Your task to perform on an android device: Go to Reddit.com Image 0: 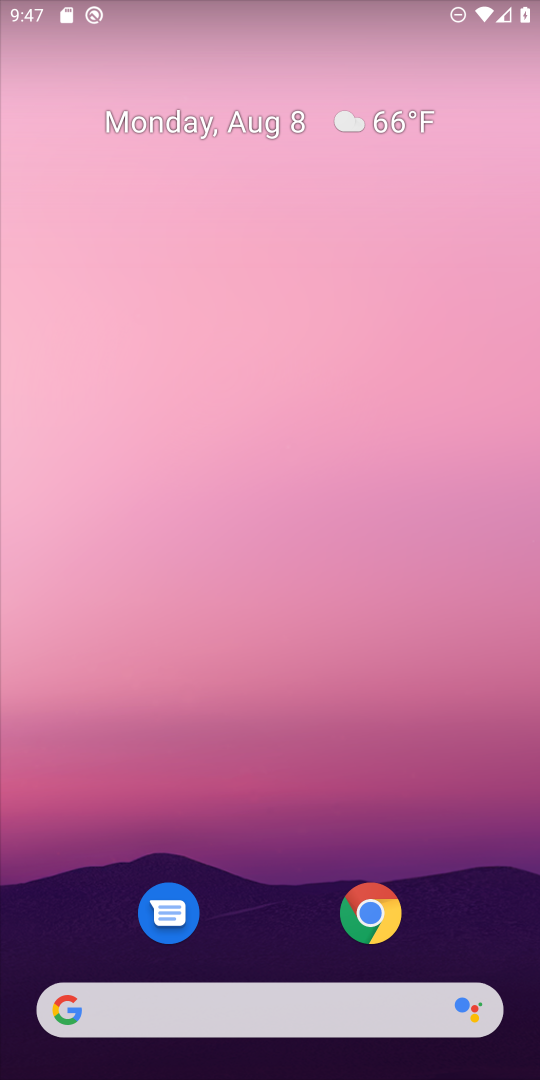
Step 0: press home button
Your task to perform on an android device: Go to Reddit.com Image 1: 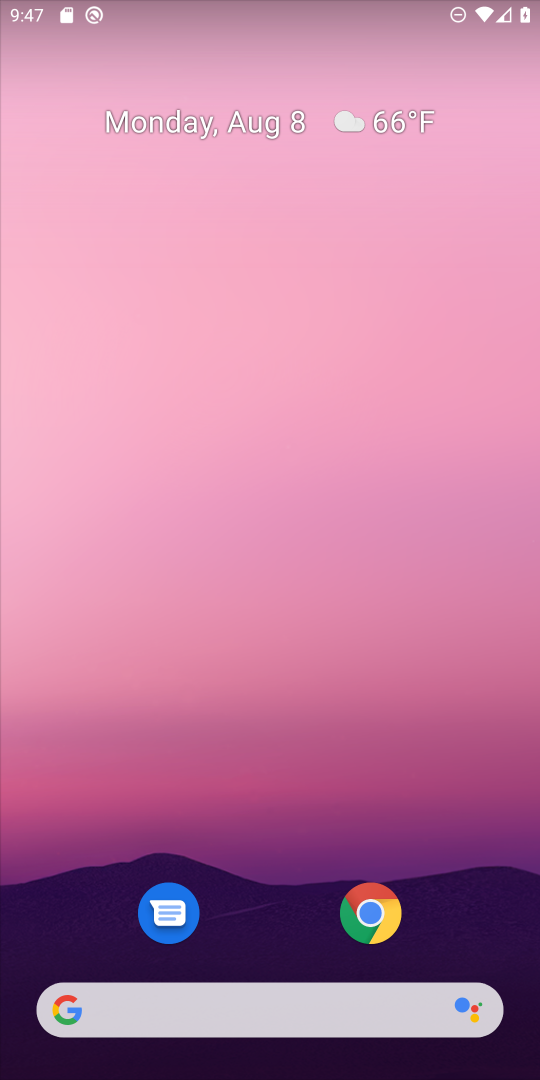
Step 1: click (370, 912)
Your task to perform on an android device: Go to Reddit.com Image 2: 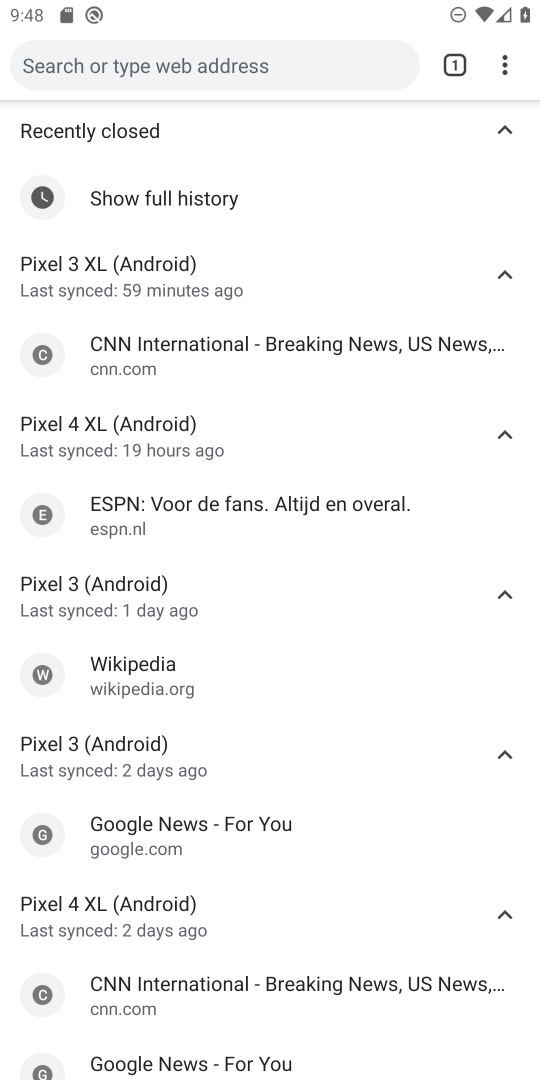
Step 2: press home button
Your task to perform on an android device: Go to Reddit.com Image 3: 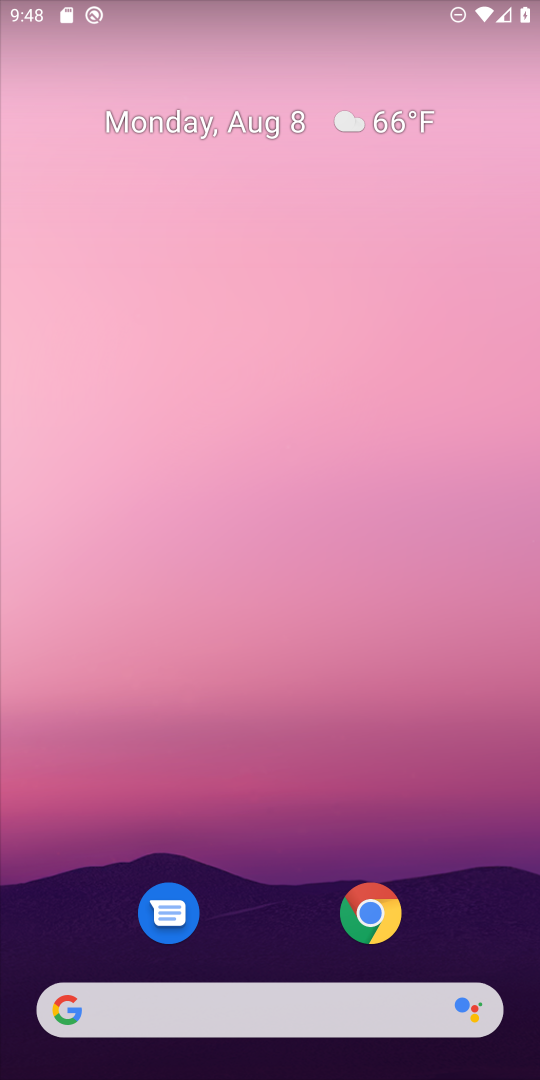
Step 3: click (367, 918)
Your task to perform on an android device: Go to Reddit.com Image 4: 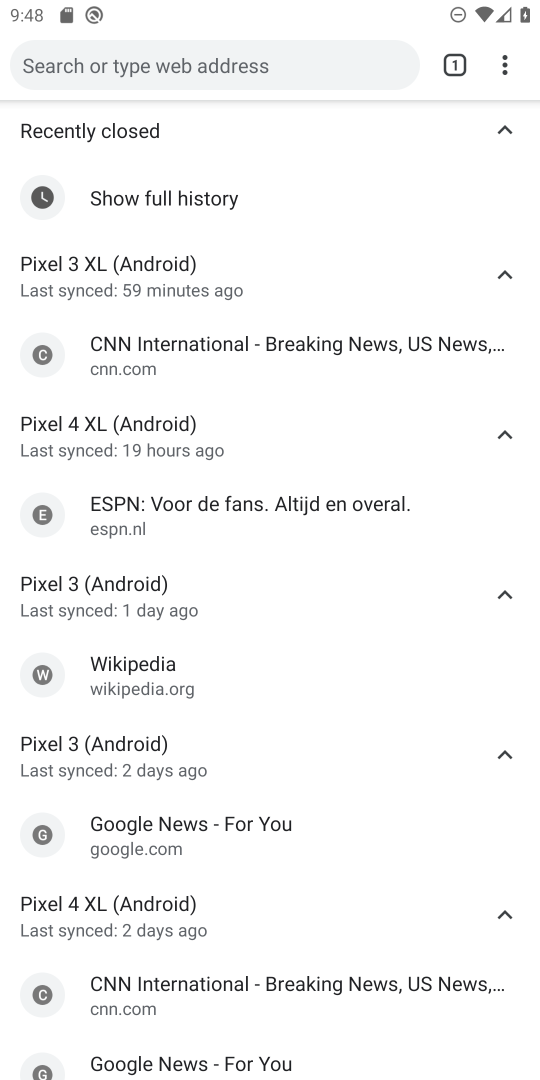
Step 4: click (306, 71)
Your task to perform on an android device: Go to Reddit.com Image 5: 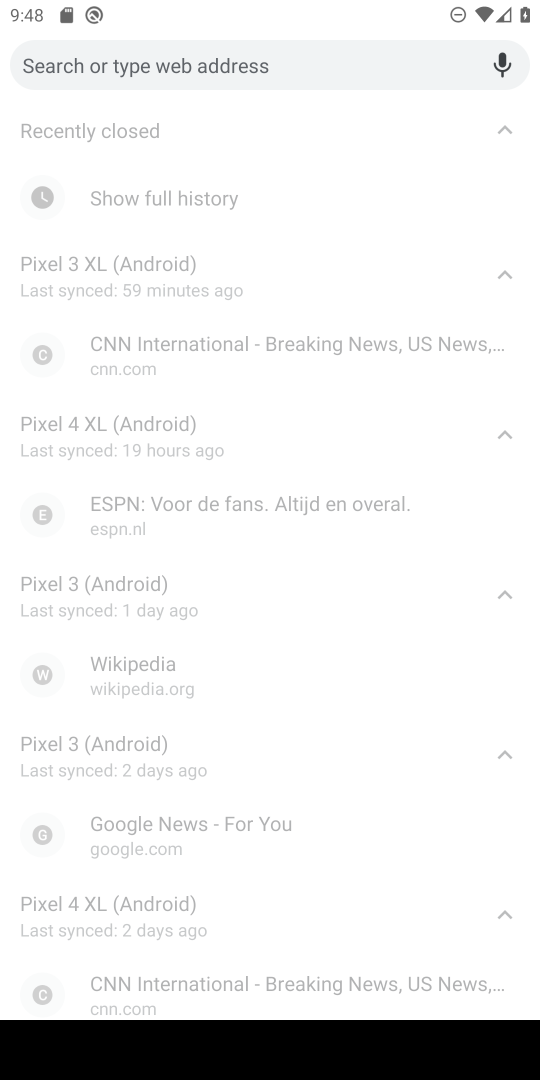
Step 5: type "Reddit.com"
Your task to perform on an android device: Go to Reddit.com Image 6: 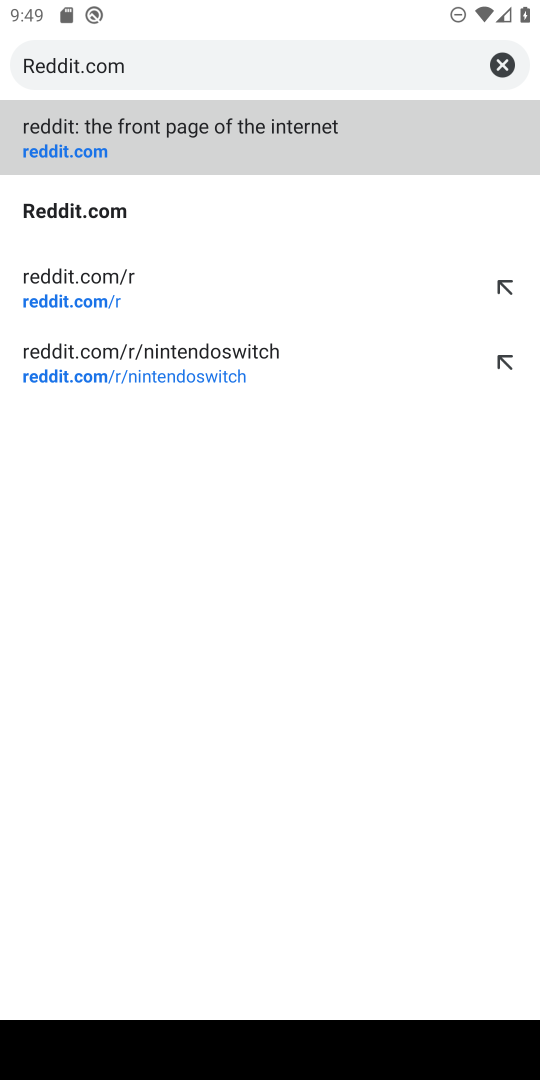
Step 6: click (72, 216)
Your task to perform on an android device: Go to Reddit.com Image 7: 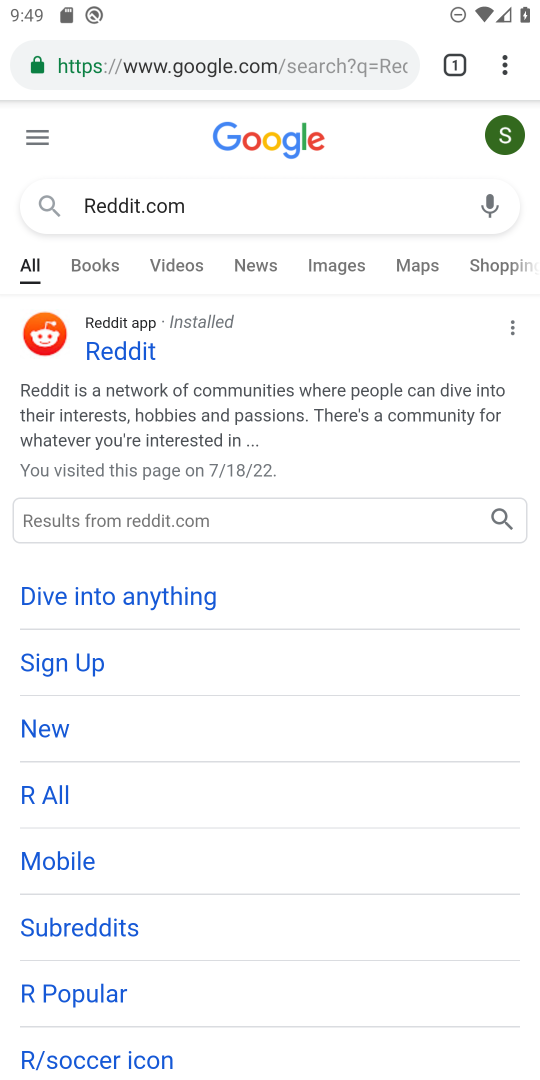
Step 7: click (119, 355)
Your task to perform on an android device: Go to Reddit.com Image 8: 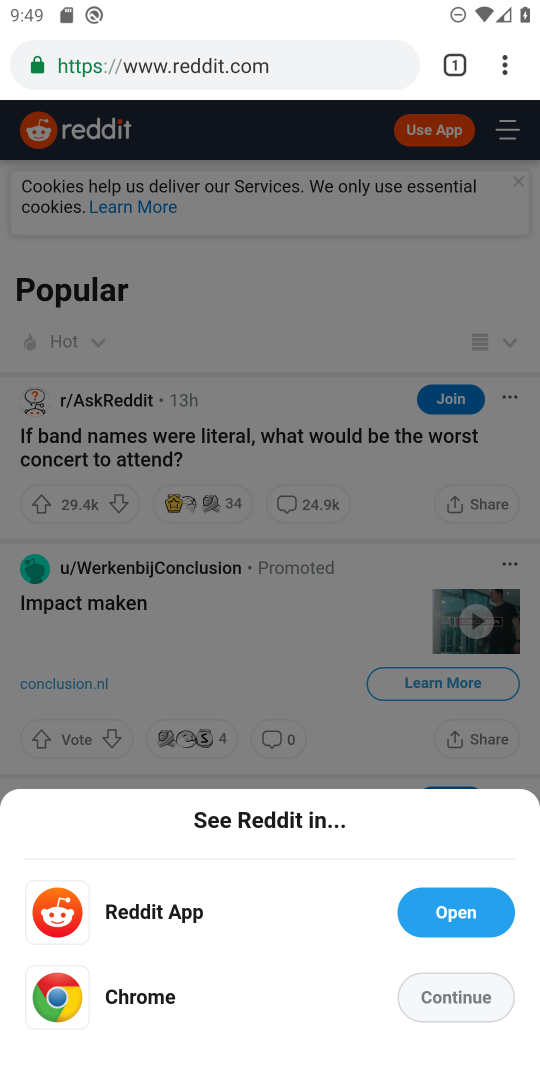
Step 8: click (476, 986)
Your task to perform on an android device: Go to Reddit.com Image 9: 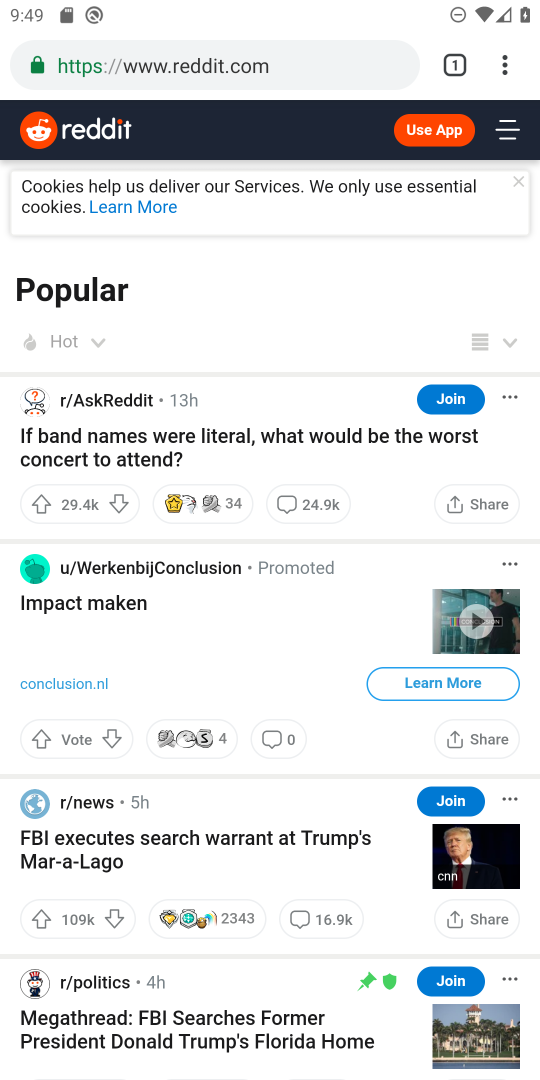
Step 9: task complete